Your task to perform on an android device: Open Chrome and go to settings Image 0: 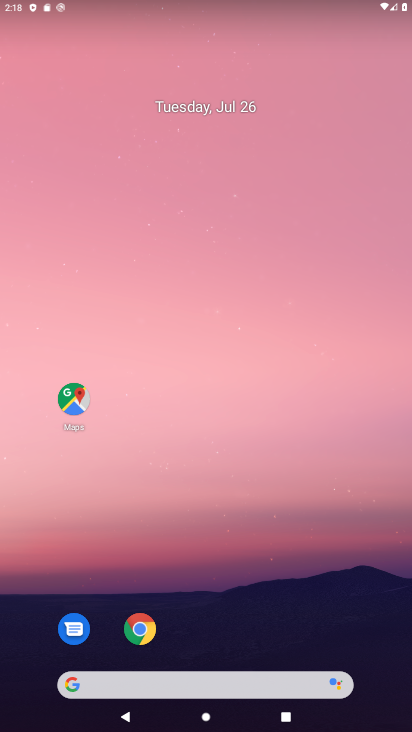
Step 0: click (137, 619)
Your task to perform on an android device: Open Chrome and go to settings Image 1: 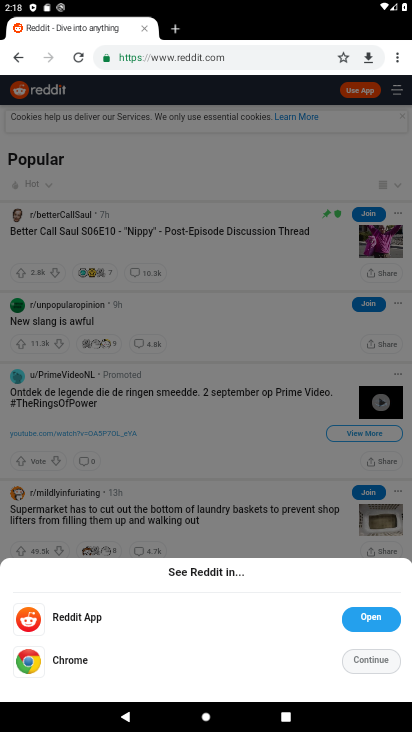
Step 1: click (401, 61)
Your task to perform on an android device: Open Chrome and go to settings Image 2: 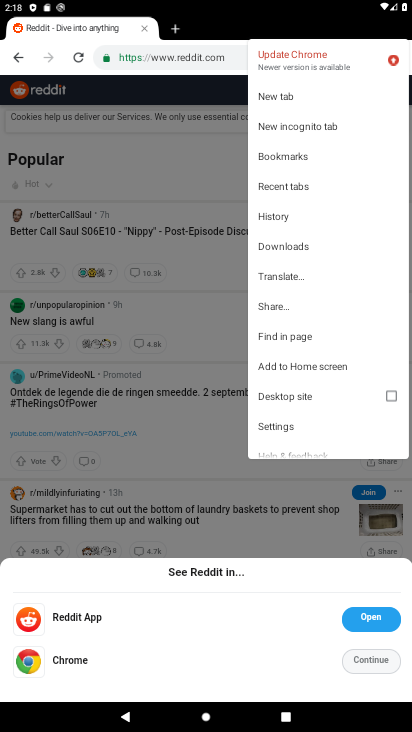
Step 2: click (290, 427)
Your task to perform on an android device: Open Chrome and go to settings Image 3: 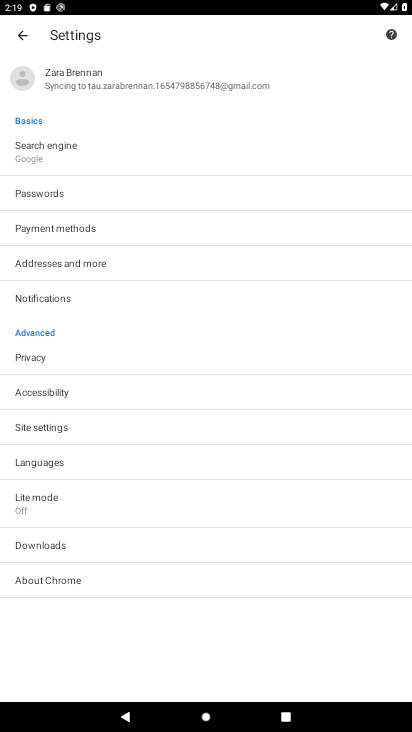
Step 3: task complete